Your task to perform on an android device: delete browsing data in the chrome app Image 0: 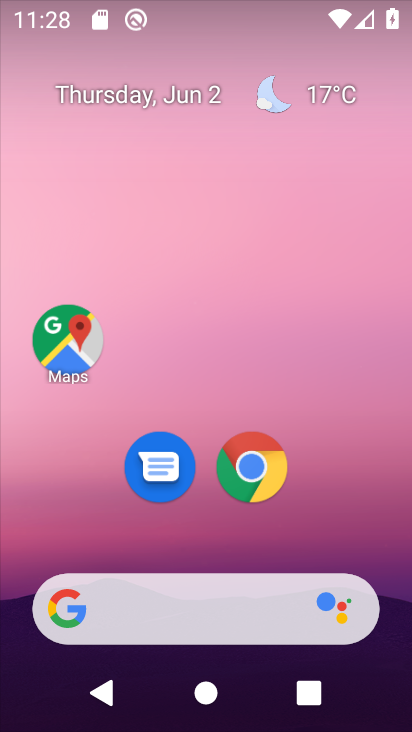
Step 0: click (266, 464)
Your task to perform on an android device: delete browsing data in the chrome app Image 1: 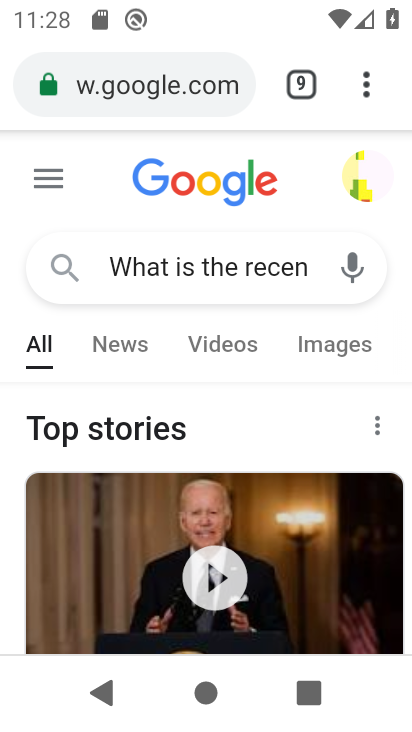
Step 1: click (354, 70)
Your task to perform on an android device: delete browsing data in the chrome app Image 2: 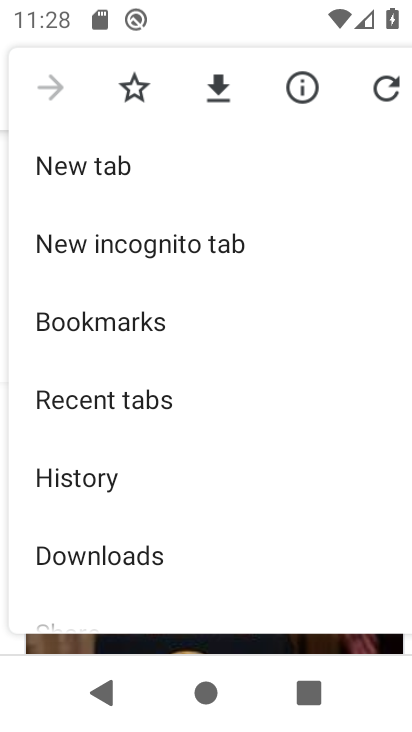
Step 2: drag from (120, 555) to (173, 177)
Your task to perform on an android device: delete browsing data in the chrome app Image 3: 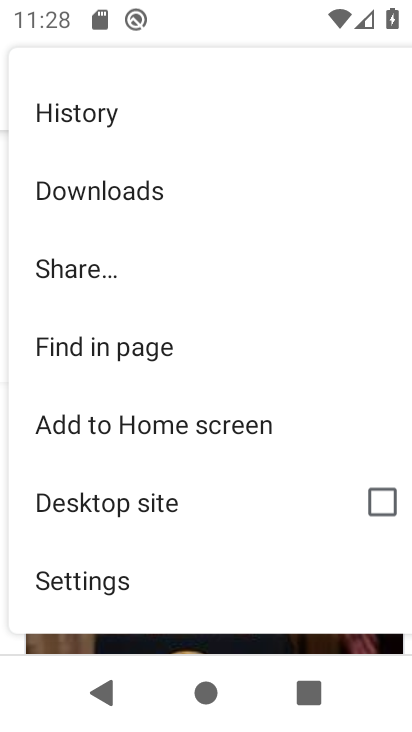
Step 3: click (108, 585)
Your task to perform on an android device: delete browsing data in the chrome app Image 4: 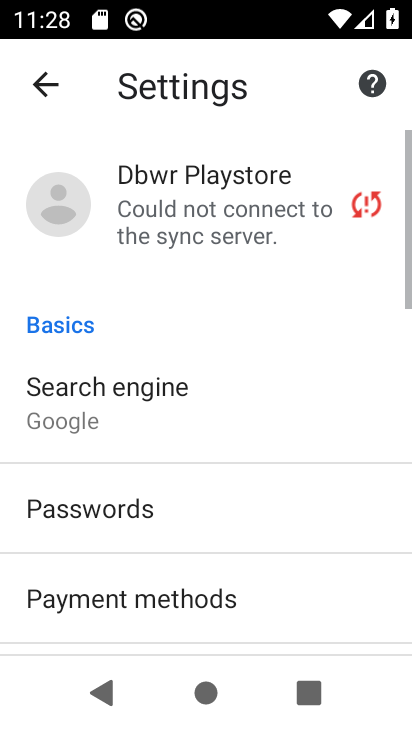
Step 4: drag from (134, 557) to (216, 179)
Your task to perform on an android device: delete browsing data in the chrome app Image 5: 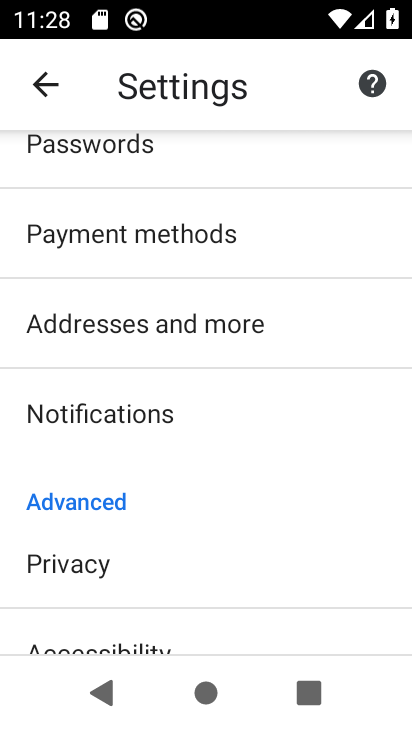
Step 5: drag from (173, 542) to (210, 213)
Your task to perform on an android device: delete browsing data in the chrome app Image 6: 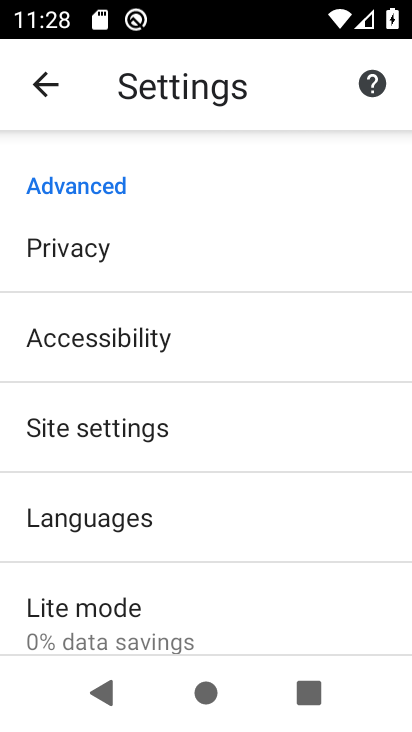
Step 6: click (121, 258)
Your task to perform on an android device: delete browsing data in the chrome app Image 7: 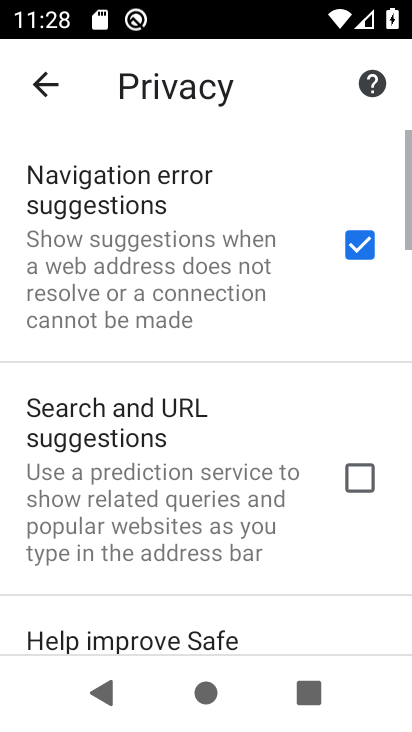
Step 7: drag from (193, 569) to (240, 212)
Your task to perform on an android device: delete browsing data in the chrome app Image 8: 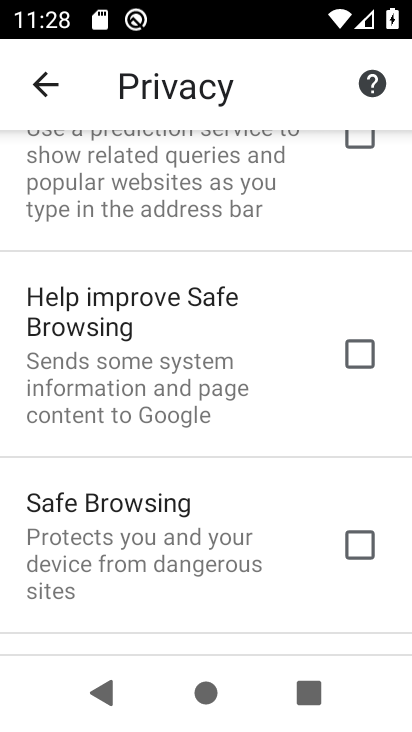
Step 8: drag from (213, 544) to (230, 143)
Your task to perform on an android device: delete browsing data in the chrome app Image 9: 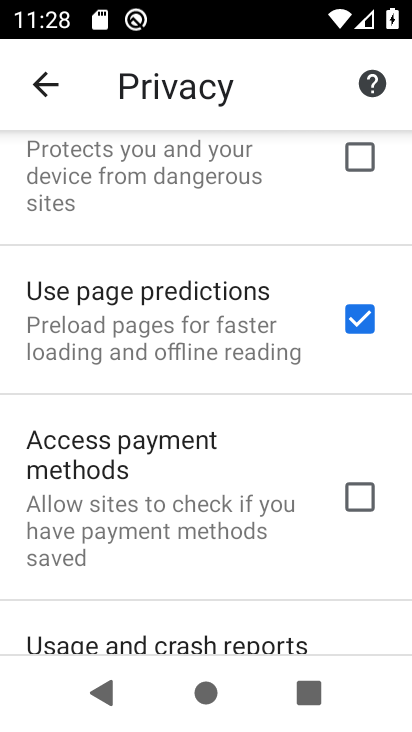
Step 9: drag from (208, 484) to (217, 191)
Your task to perform on an android device: delete browsing data in the chrome app Image 10: 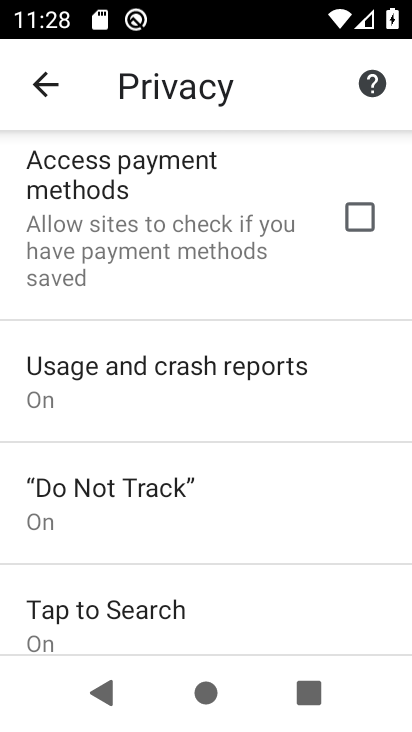
Step 10: drag from (207, 538) to (234, 190)
Your task to perform on an android device: delete browsing data in the chrome app Image 11: 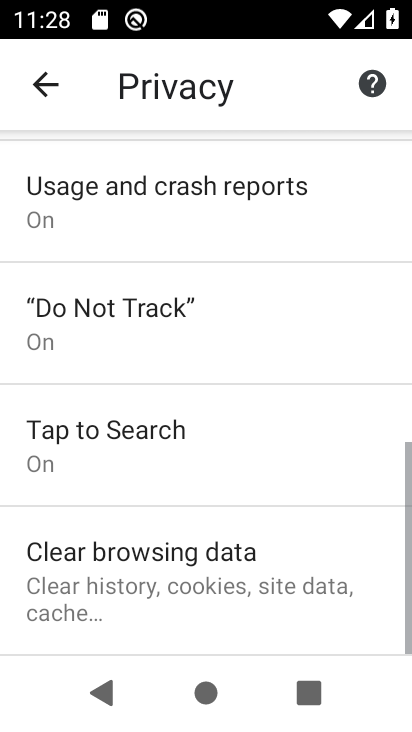
Step 11: drag from (239, 618) to (246, 329)
Your task to perform on an android device: delete browsing data in the chrome app Image 12: 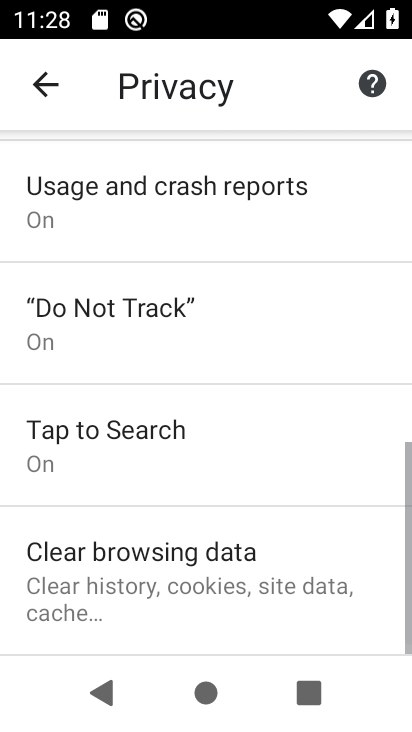
Step 12: click (192, 587)
Your task to perform on an android device: delete browsing data in the chrome app Image 13: 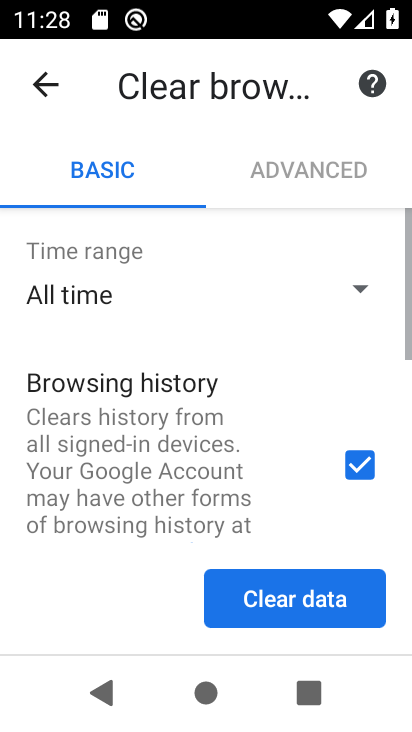
Step 13: click (285, 577)
Your task to perform on an android device: delete browsing data in the chrome app Image 14: 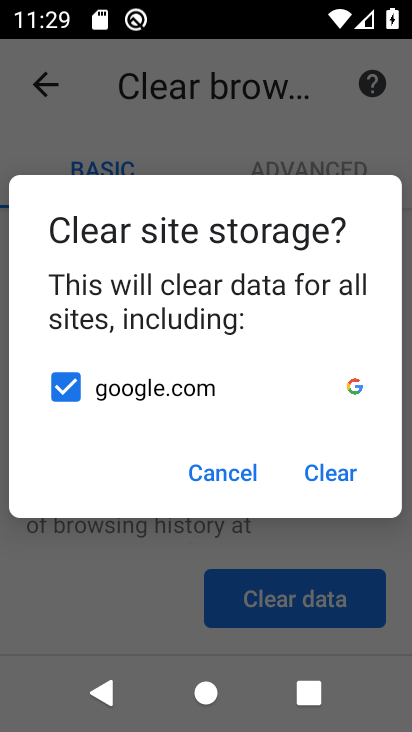
Step 14: click (336, 478)
Your task to perform on an android device: delete browsing data in the chrome app Image 15: 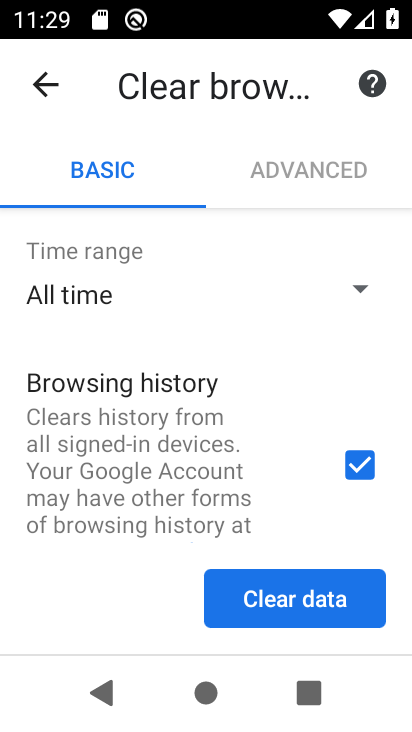
Step 15: task complete